Your task to perform on an android device: Go to Google Image 0: 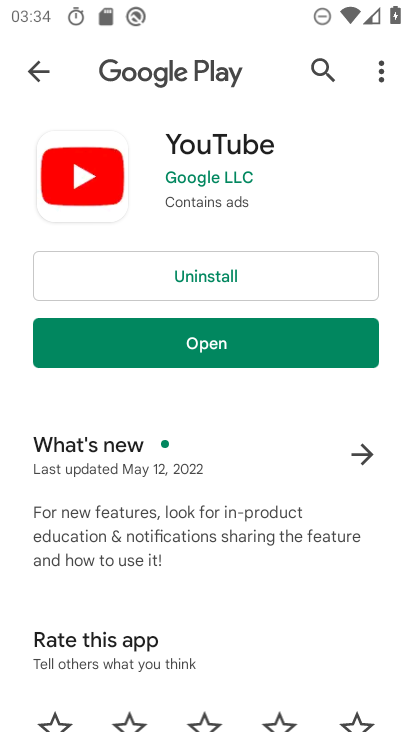
Step 0: press home button
Your task to perform on an android device: Go to Google Image 1: 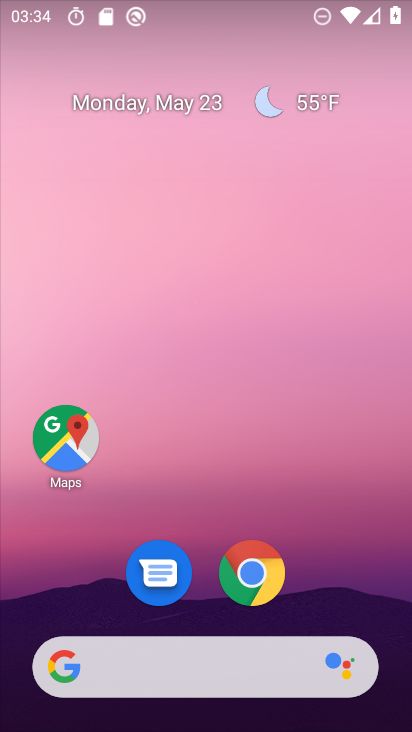
Step 1: drag from (315, 591) to (259, 161)
Your task to perform on an android device: Go to Google Image 2: 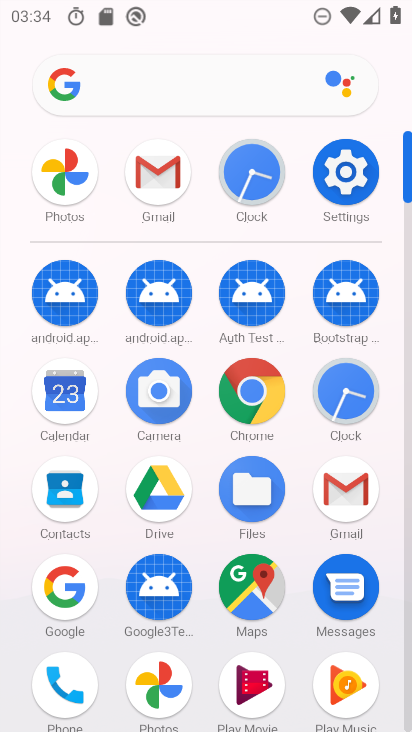
Step 2: click (70, 592)
Your task to perform on an android device: Go to Google Image 3: 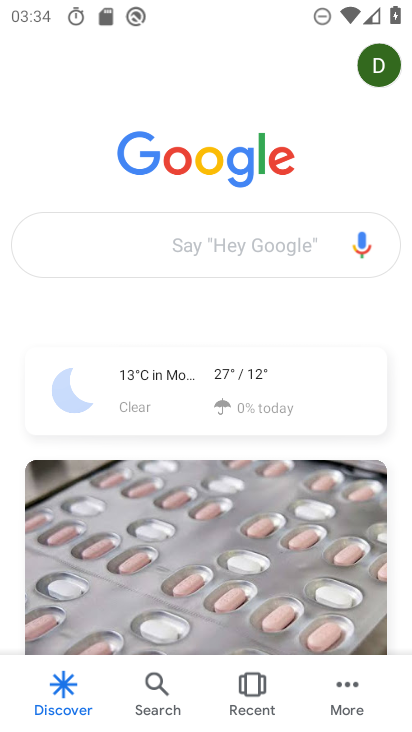
Step 3: task complete